Your task to perform on an android device: Open ESPN.com Image 0: 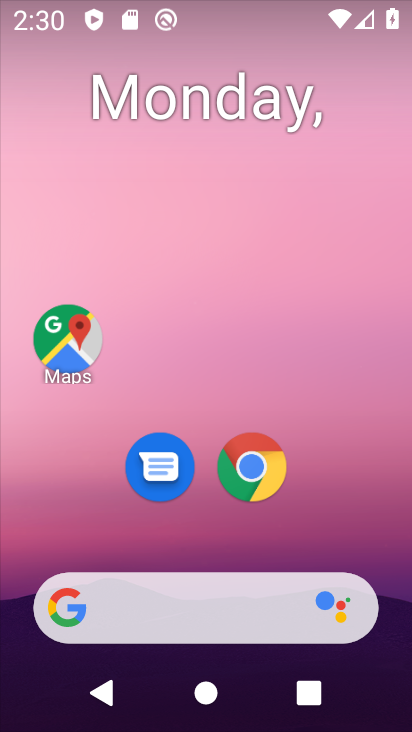
Step 0: drag from (388, 567) to (312, 234)
Your task to perform on an android device: Open ESPN.com Image 1: 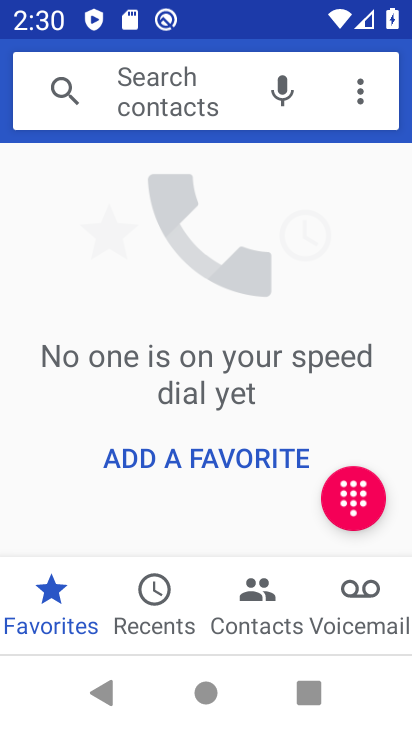
Step 1: click (312, 234)
Your task to perform on an android device: Open ESPN.com Image 2: 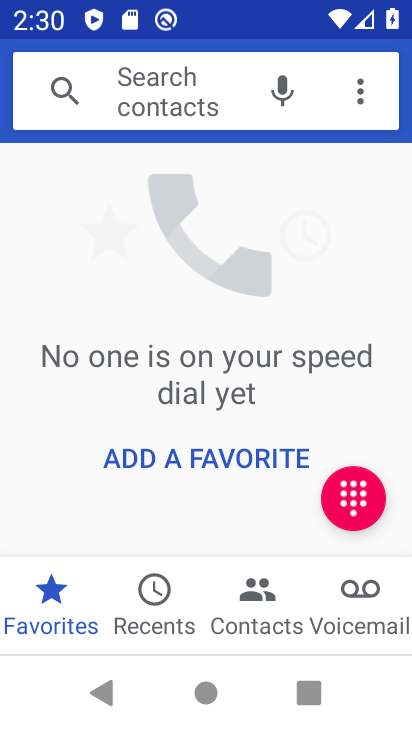
Step 2: press home button
Your task to perform on an android device: Open ESPN.com Image 3: 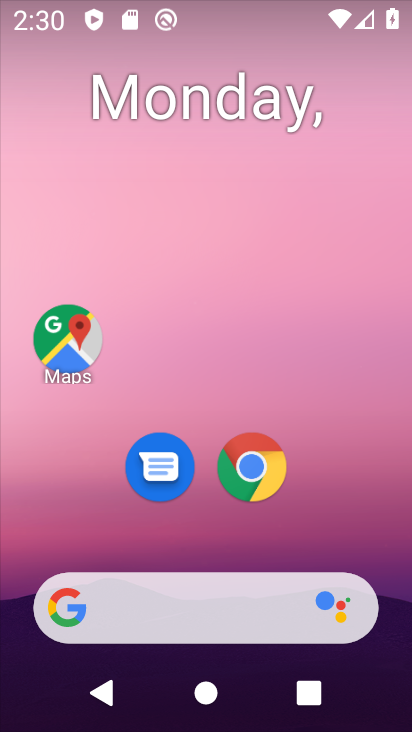
Step 3: click (258, 469)
Your task to perform on an android device: Open ESPN.com Image 4: 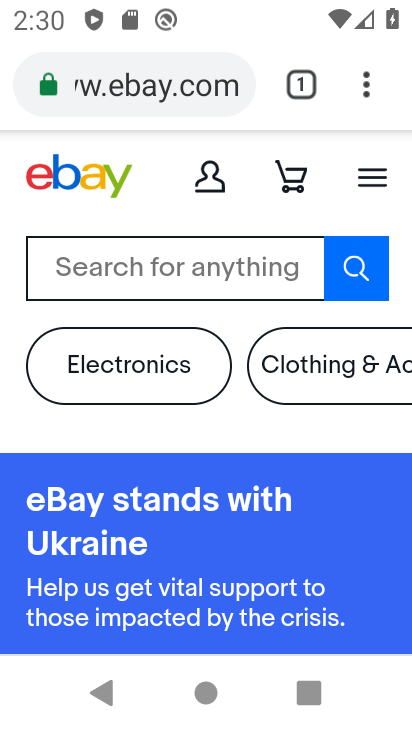
Step 4: click (306, 87)
Your task to perform on an android device: Open ESPN.com Image 5: 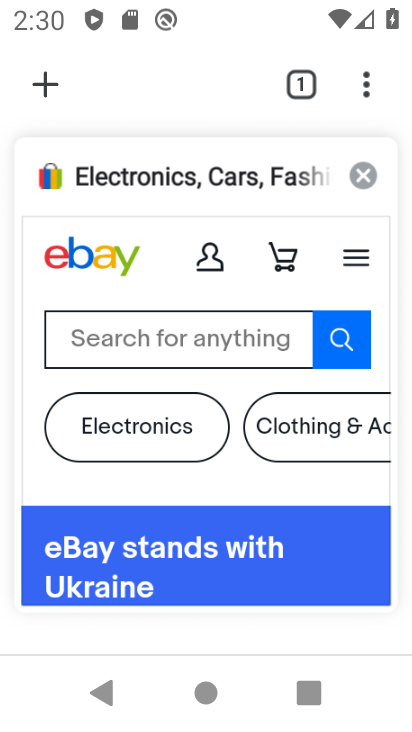
Step 5: click (48, 75)
Your task to perform on an android device: Open ESPN.com Image 6: 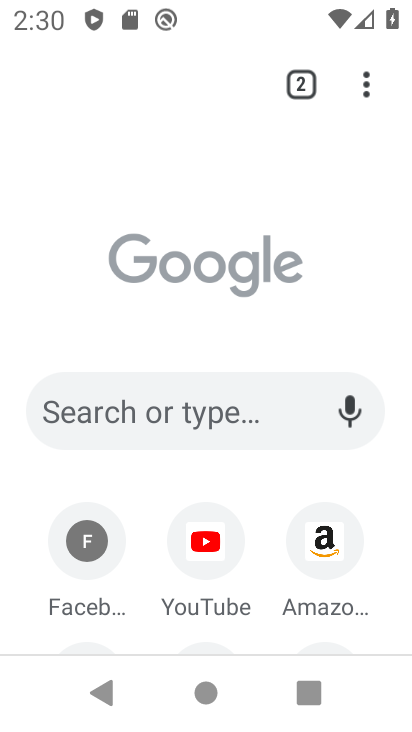
Step 6: drag from (267, 541) to (212, 253)
Your task to perform on an android device: Open ESPN.com Image 7: 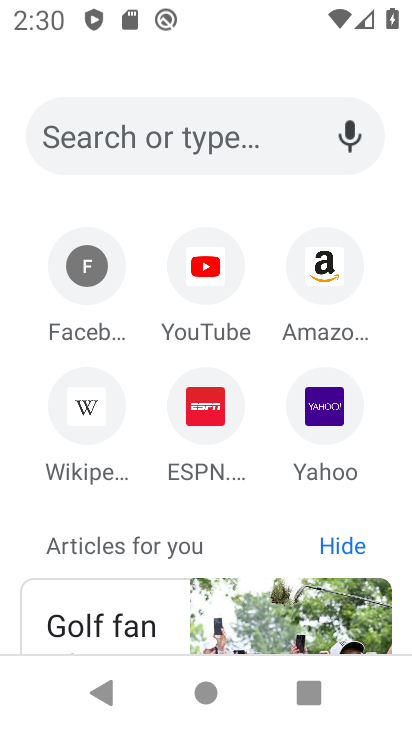
Step 7: click (198, 404)
Your task to perform on an android device: Open ESPN.com Image 8: 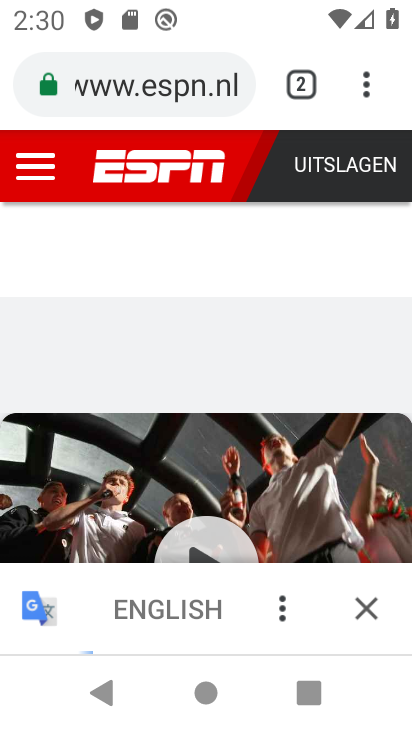
Step 8: task complete